Your task to perform on an android device: search for starred emails in the gmail app Image 0: 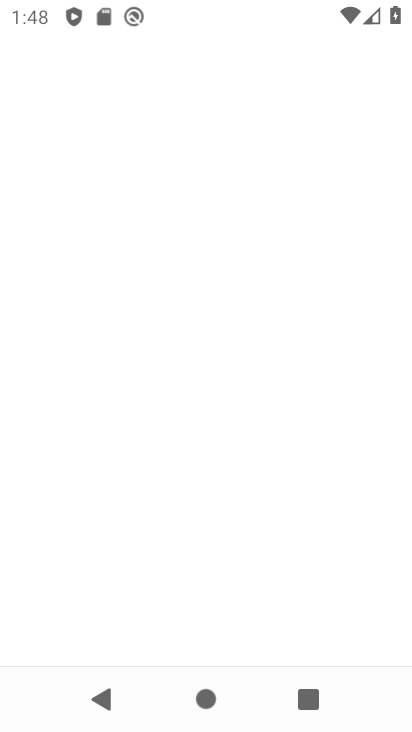
Step 0: click (214, 633)
Your task to perform on an android device: search for starred emails in the gmail app Image 1: 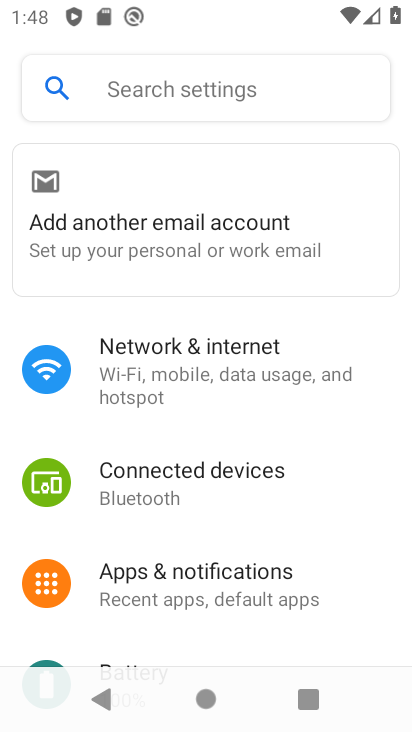
Step 1: press home button
Your task to perform on an android device: search for starred emails in the gmail app Image 2: 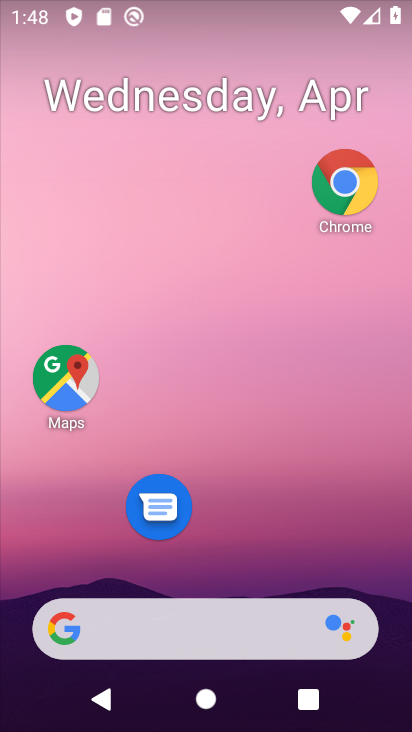
Step 2: click (215, 631)
Your task to perform on an android device: search for starred emails in the gmail app Image 3: 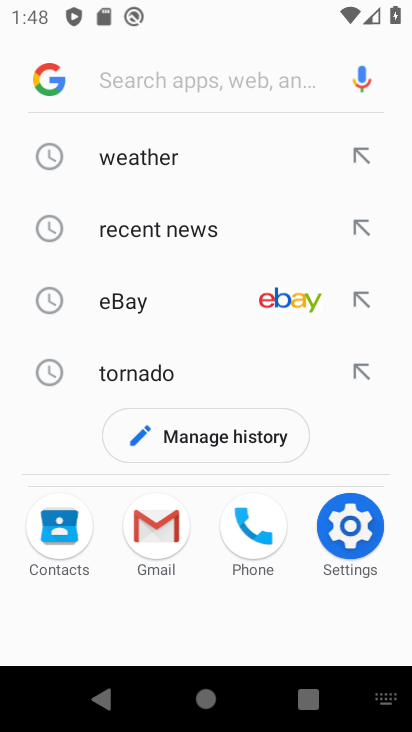
Step 3: press home button
Your task to perform on an android device: search for starred emails in the gmail app Image 4: 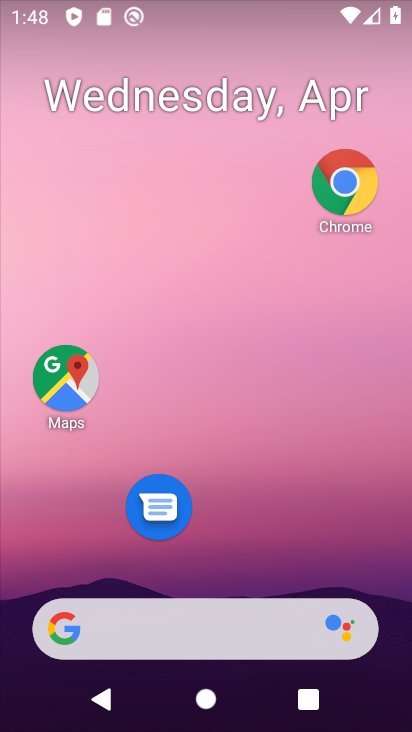
Step 4: drag from (260, 698) to (186, 2)
Your task to perform on an android device: search for starred emails in the gmail app Image 5: 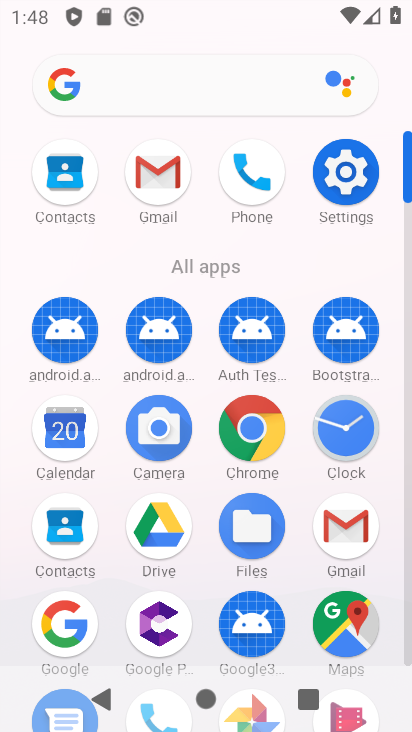
Step 5: click (164, 170)
Your task to perform on an android device: search for starred emails in the gmail app Image 6: 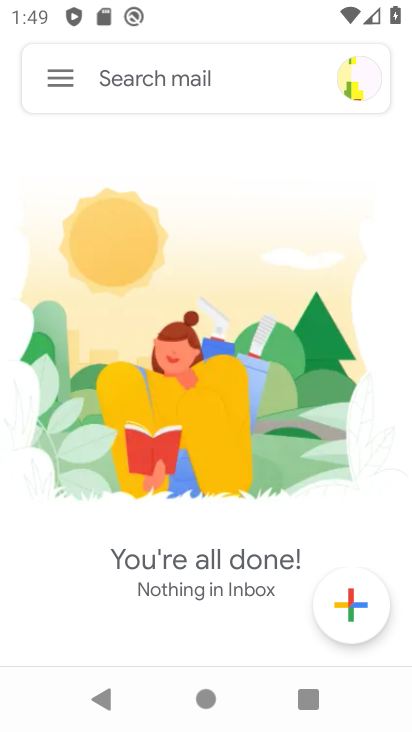
Step 6: click (50, 75)
Your task to perform on an android device: search for starred emails in the gmail app Image 7: 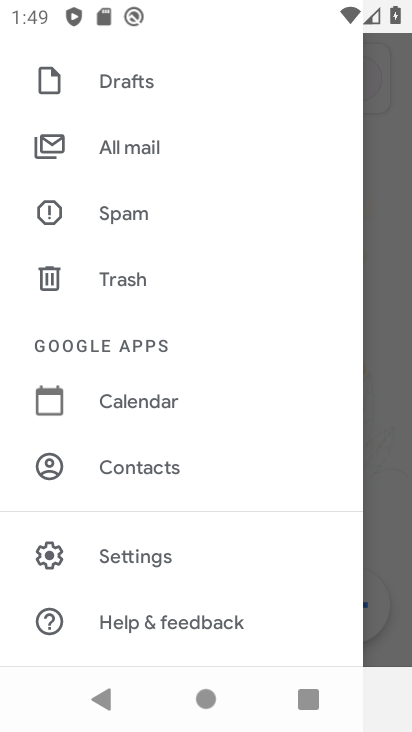
Step 7: drag from (261, 161) to (243, 562)
Your task to perform on an android device: search for starred emails in the gmail app Image 8: 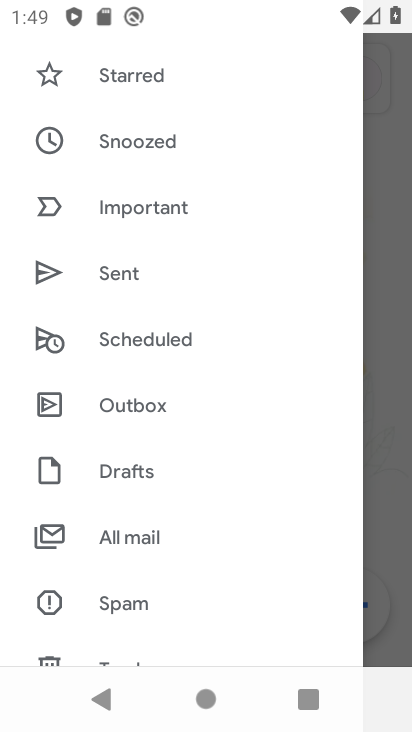
Step 8: click (160, 76)
Your task to perform on an android device: search for starred emails in the gmail app Image 9: 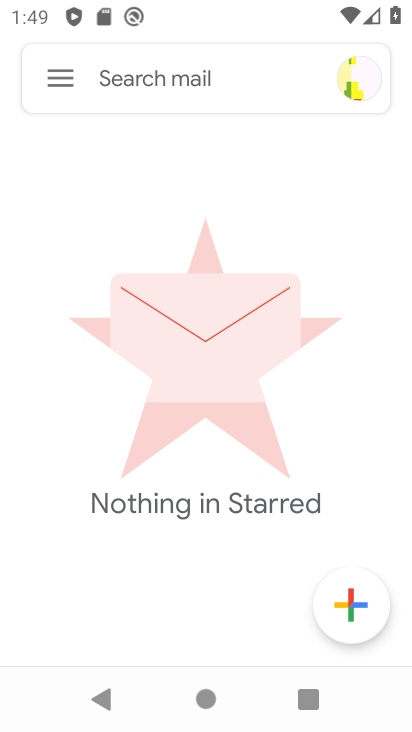
Step 9: task complete